Your task to perform on an android device: turn off airplane mode Image 0: 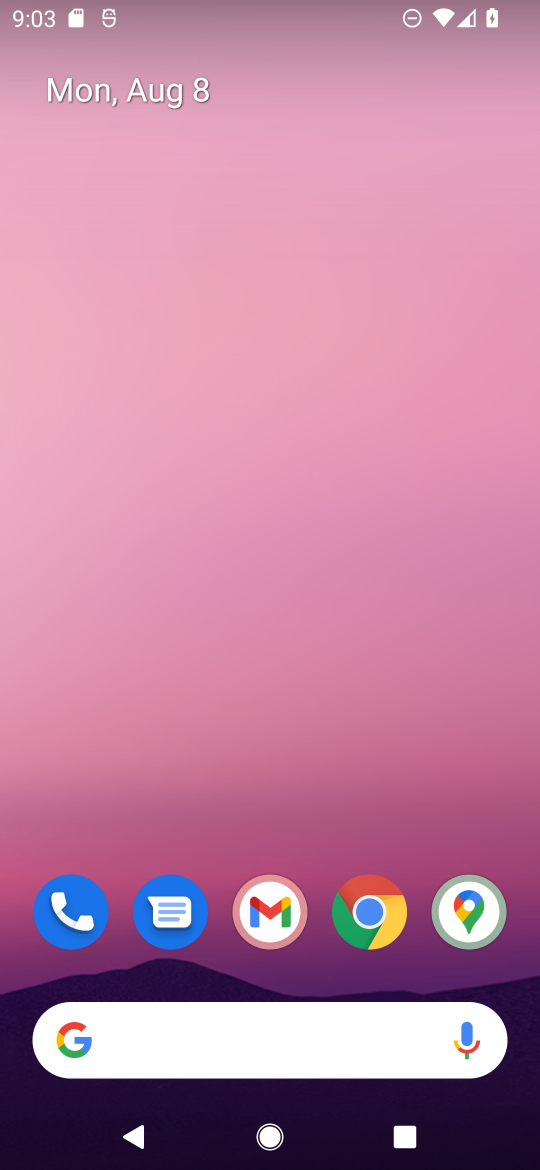
Step 0: drag from (501, 887) to (207, 473)
Your task to perform on an android device: turn off airplane mode Image 1: 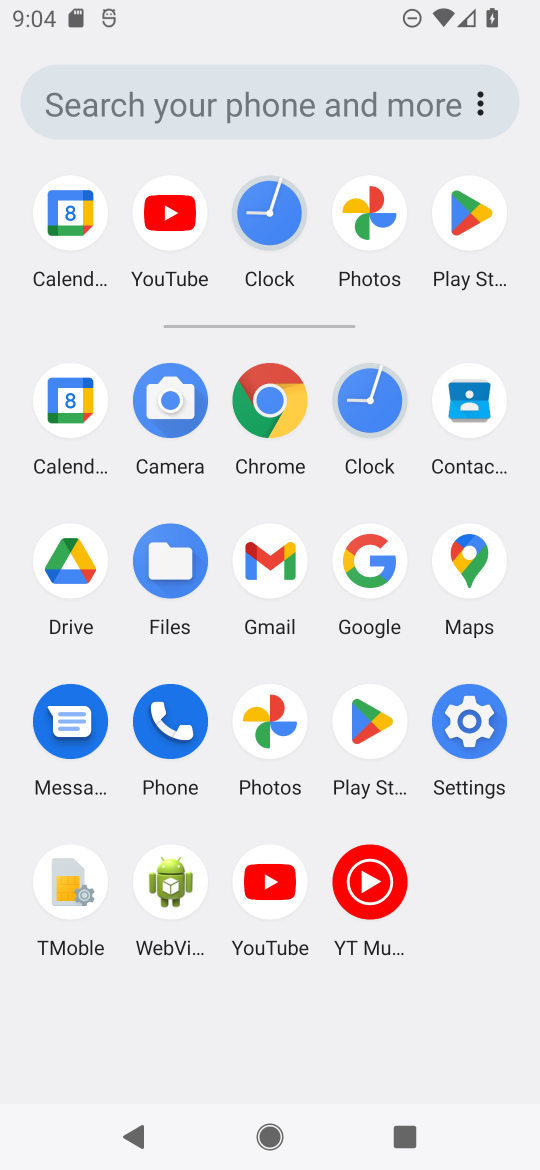
Step 1: task complete